Your task to perform on an android device: Go to CNN.com Image 0: 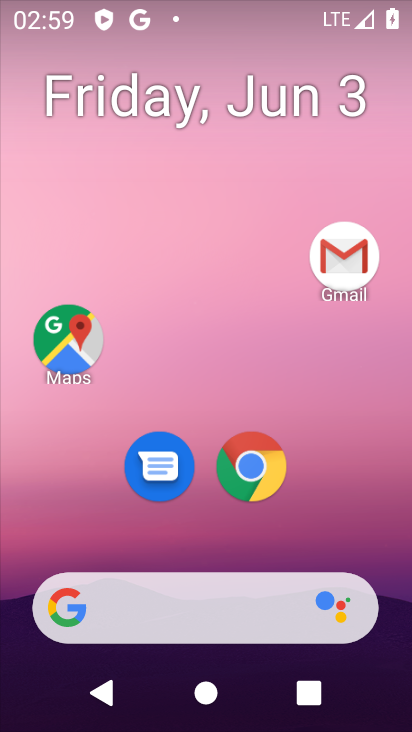
Step 0: click (252, 462)
Your task to perform on an android device: Go to CNN.com Image 1: 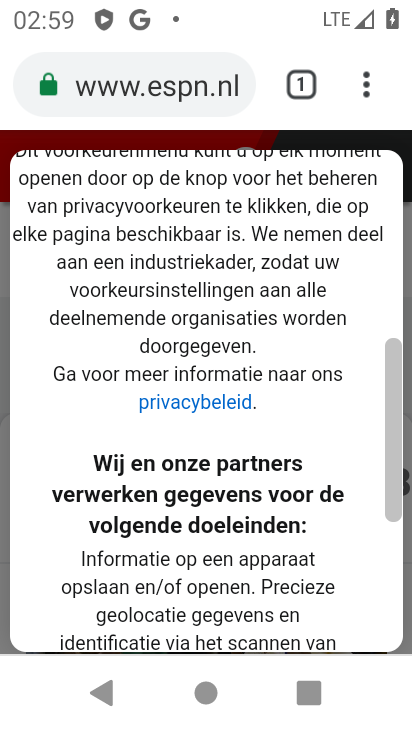
Step 1: press back button
Your task to perform on an android device: Go to CNN.com Image 2: 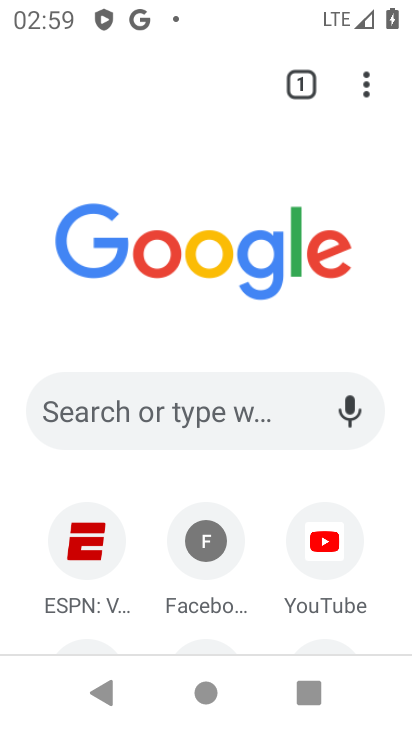
Step 2: drag from (260, 615) to (237, 444)
Your task to perform on an android device: Go to CNN.com Image 3: 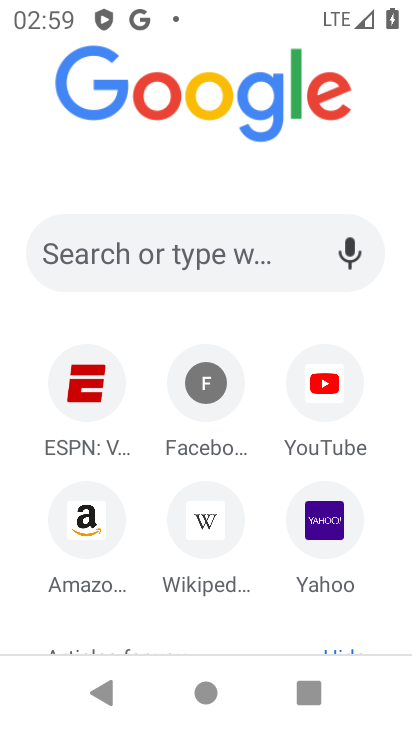
Step 3: click (145, 260)
Your task to perform on an android device: Go to CNN.com Image 4: 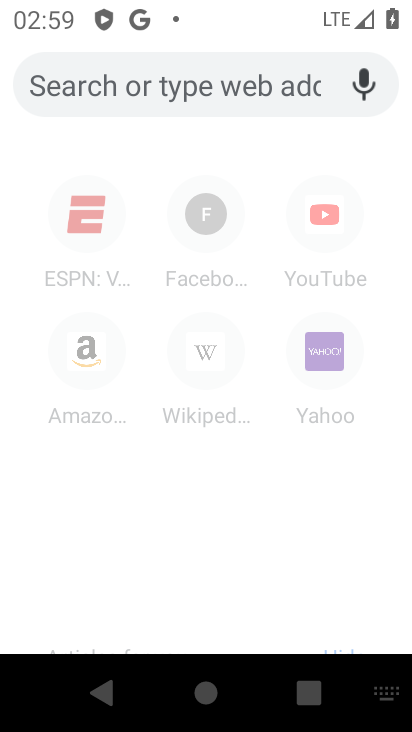
Step 4: type "www.cnn.com"
Your task to perform on an android device: Go to CNN.com Image 5: 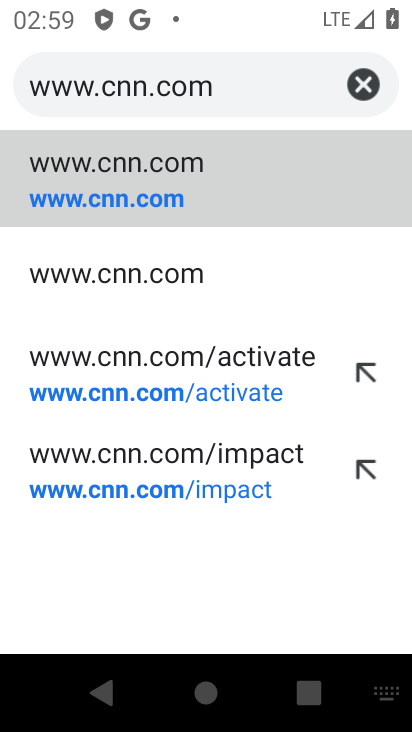
Step 5: click (150, 196)
Your task to perform on an android device: Go to CNN.com Image 6: 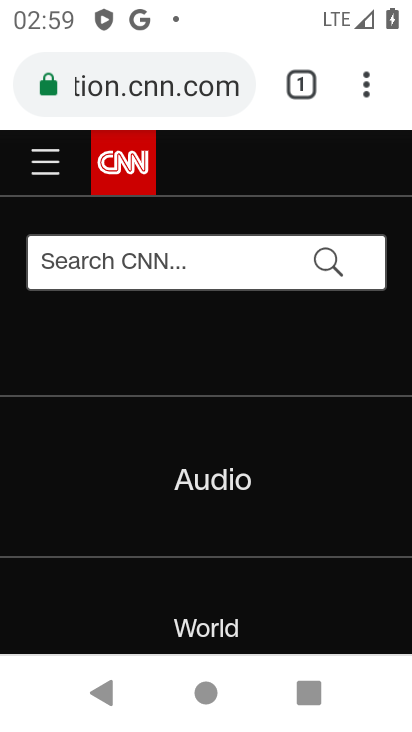
Step 6: task complete